Your task to perform on an android device: Show me recent news Image 0: 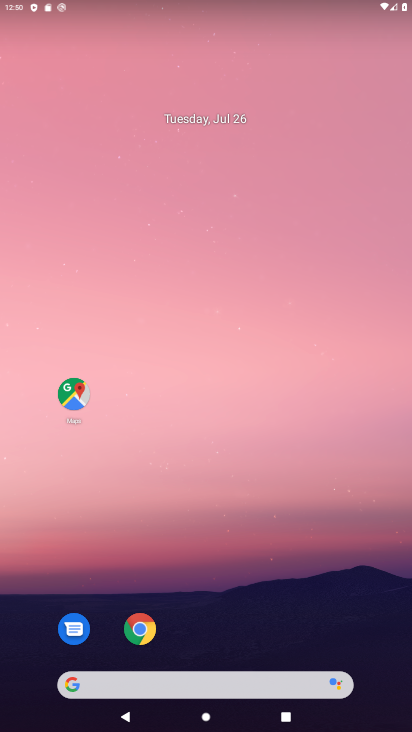
Step 0: drag from (6, 285) to (396, 270)
Your task to perform on an android device: Show me recent news Image 1: 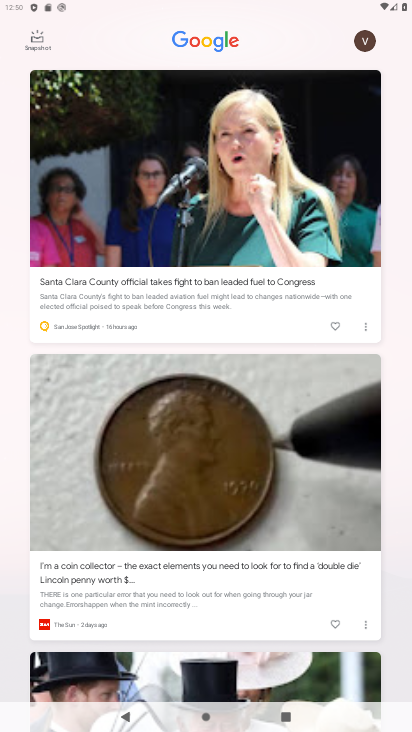
Step 1: task complete